Your task to perform on an android device: Open calendar and show me the third week of next month Image 0: 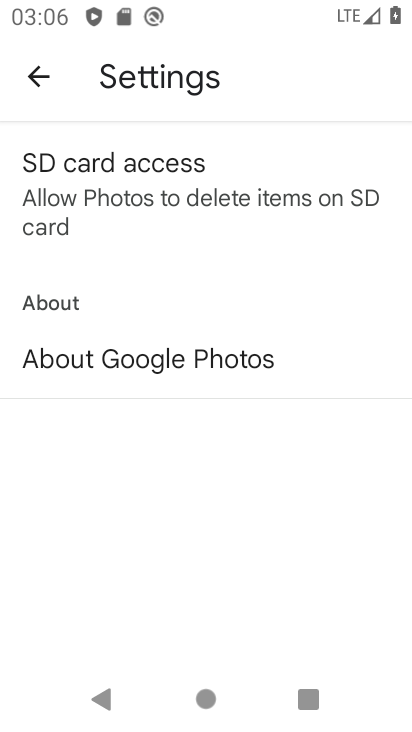
Step 0: press home button
Your task to perform on an android device: Open calendar and show me the third week of next month Image 1: 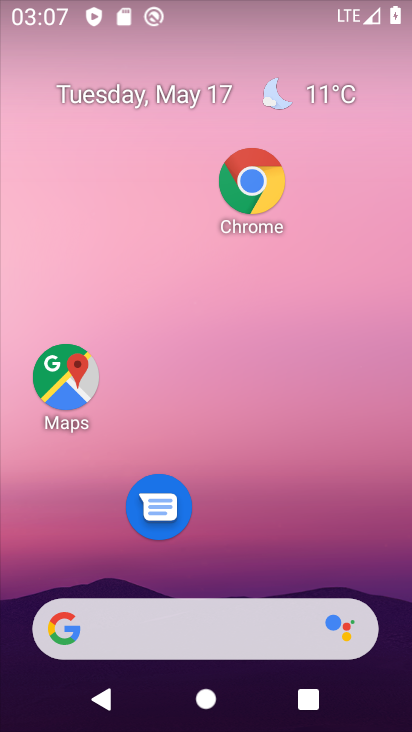
Step 1: click (161, 89)
Your task to perform on an android device: Open calendar and show me the third week of next month Image 2: 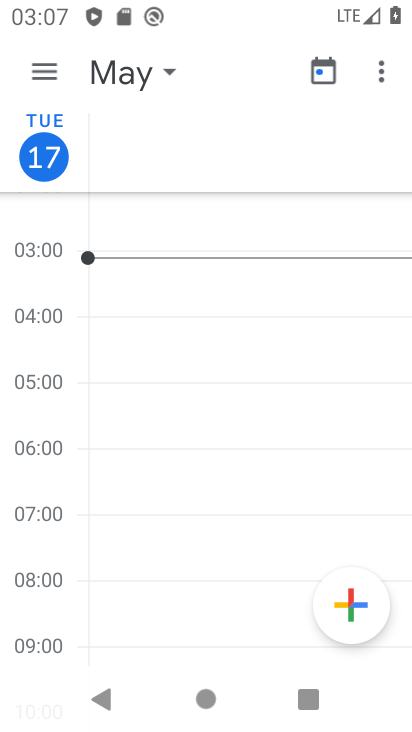
Step 2: click (161, 89)
Your task to perform on an android device: Open calendar and show me the third week of next month Image 3: 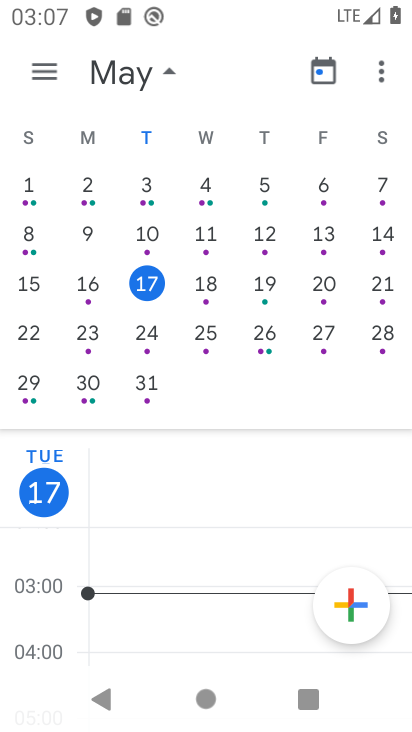
Step 3: drag from (385, 356) to (11, 325)
Your task to perform on an android device: Open calendar and show me the third week of next month Image 4: 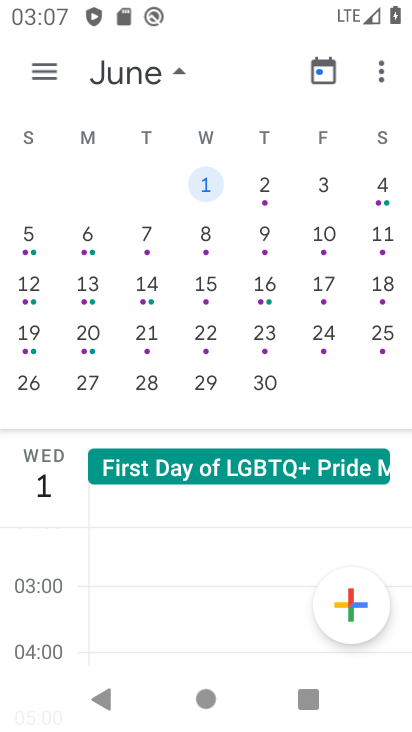
Step 4: click (210, 279)
Your task to perform on an android device: Open calendar and show me the third week of next month Image 5: 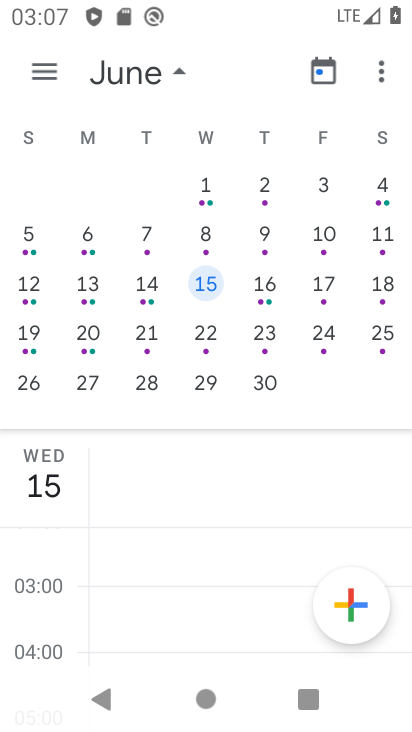
Step 5: task complete